Your task to perform on an android device: turn on priority inbox in the gmail app Image 0: 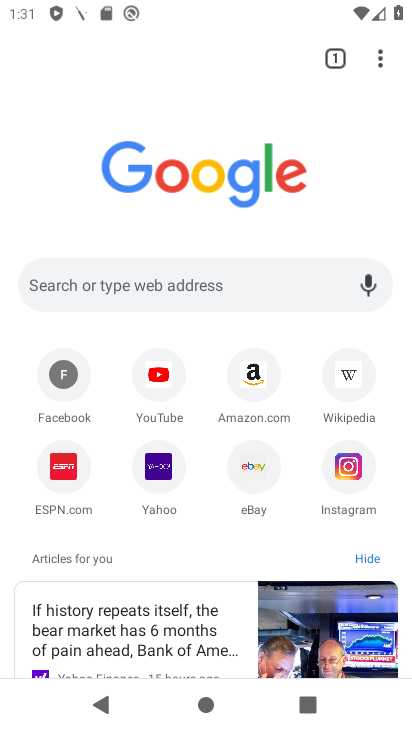
Step 0: press home button
Your task to perform on an android device: turn on priority inbox in the gmail app Image 1: 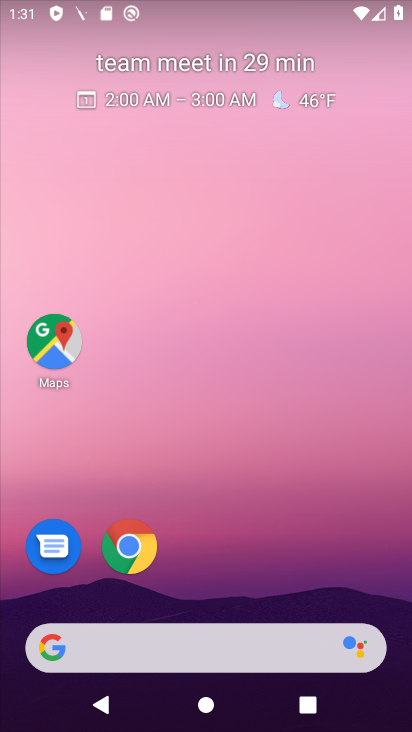
Step 1: drag from (376, 598) to (292, 60)
Your task to perform on an android device: turn on priority inbox in the gmail app Image 2: 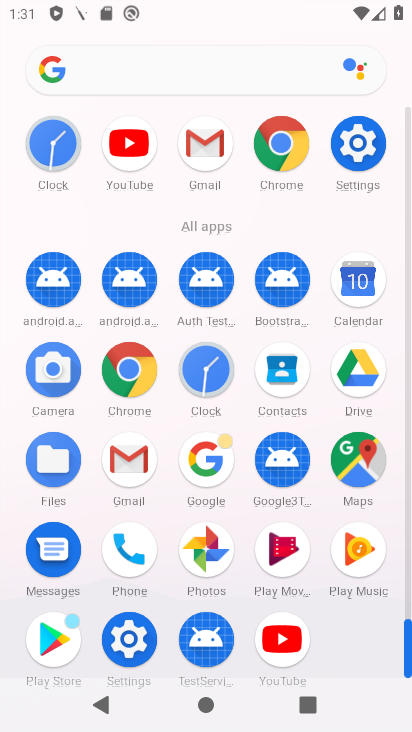
Step 2: click (123, 453)
Your task to perform on an android device: turn on priority inbox in the gmail app Image 3: 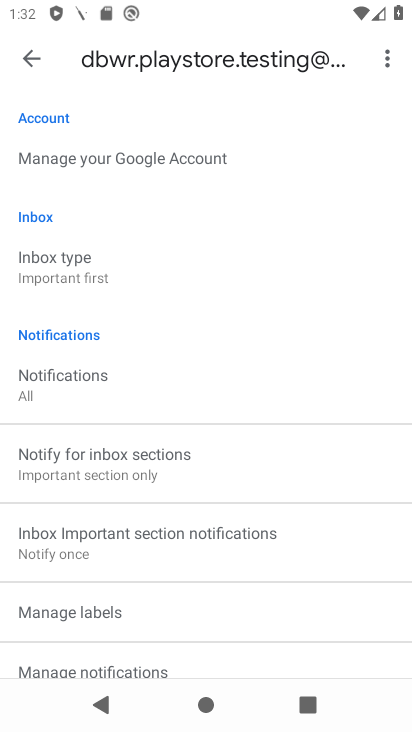
Step 3: click (51, 251)
Your task to perform on an android device: turn on priority inbox in the gmail app Image 4: 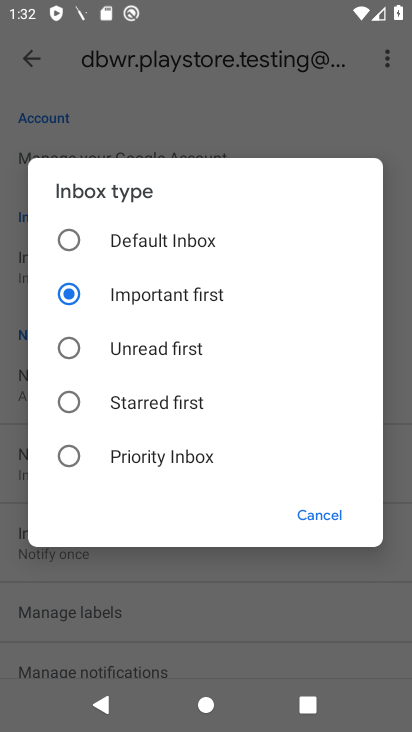
Step 4: click (61, 456)
Your task to perform on an android device: turn on priority inbox in the gmail app Image 5: 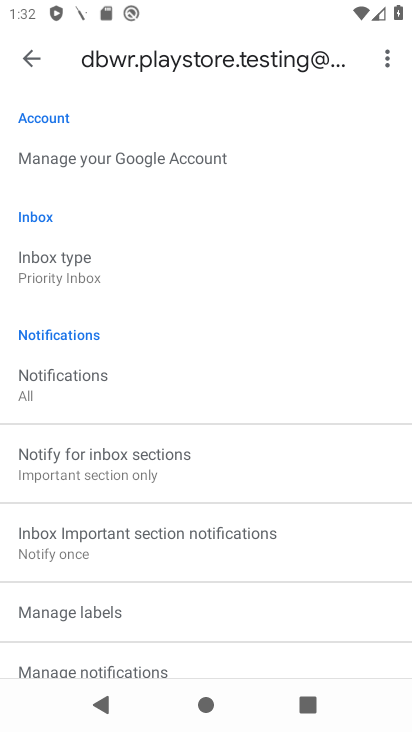
Step 5: task complete